Your task to perform on an android device: turn on showing notifications on the lock screen Image 0: 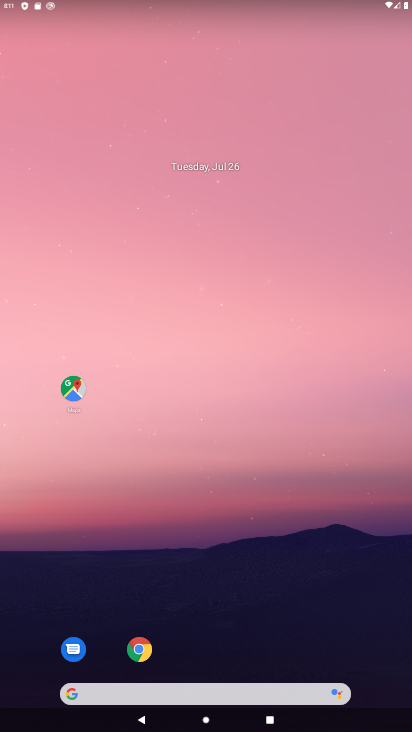
Step 0: drag from (220, 628) to (233, 231)
Your task to perform on an android device: turn on showing notifications on the lock screen Image 1: 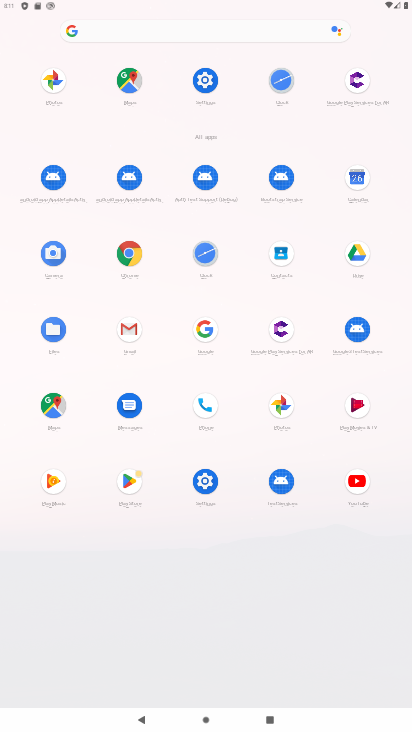
Step 1: click (190, 77)
Your task to perform on an android device: turn on showing notifications on the lock screen Image 2: 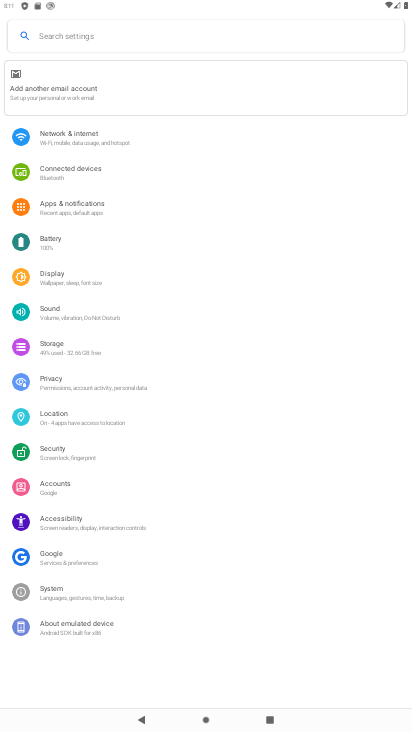
Step 2: click (61, 204)
Your task to perform on an android device: turn on showing notifications on the lock screen Image 3: 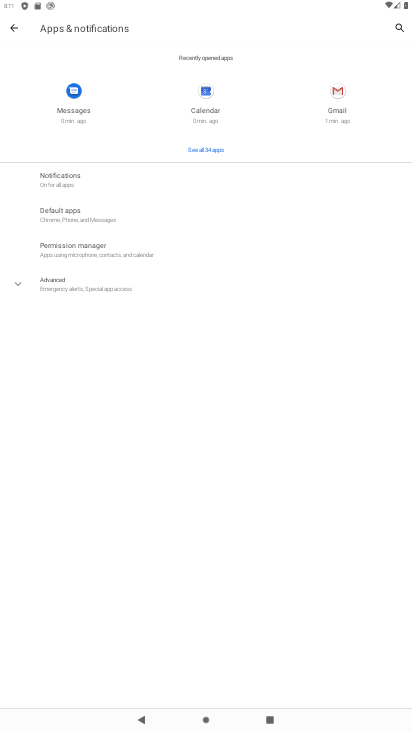
Step 3: click (94, 191)
Your task to perform on an android device: turn on showing notifications on the lock screen Image 4: 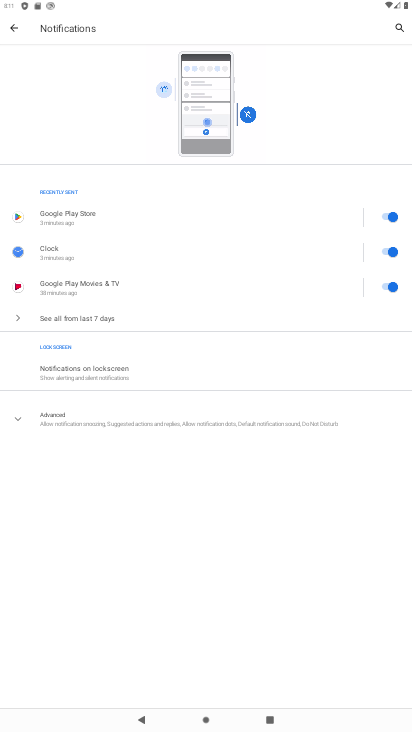
Step 4: click (87, 373)
Your task to perform on an android device: turn on showing notifications on the lock screen Image 5: 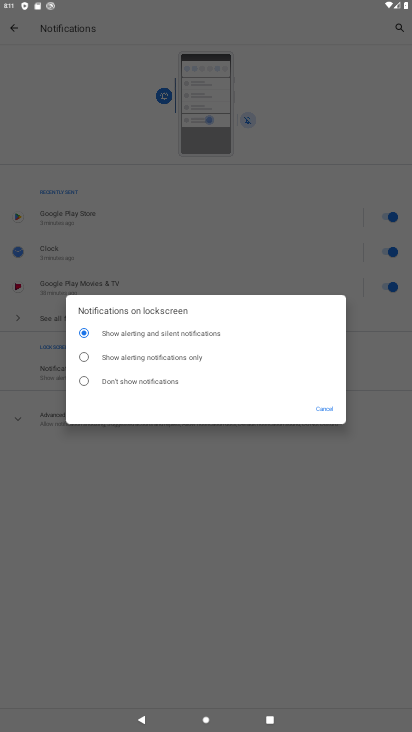
Step 5: task complete